Your task to perform on an android device: Open Android settings Image 0: 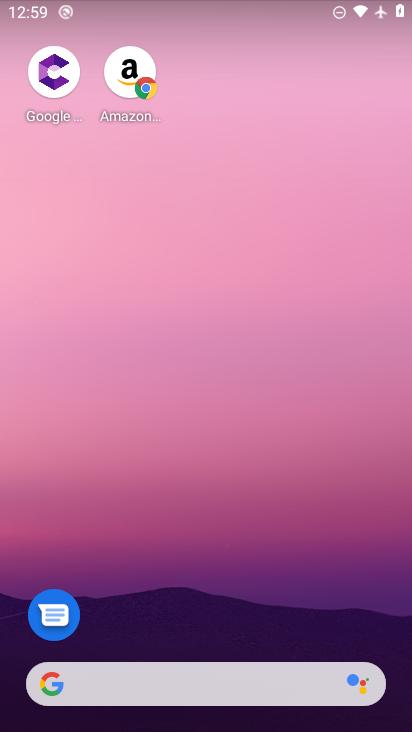
Step 0: press home button
Your task to perform on an android device: Open Android settings Image 1: 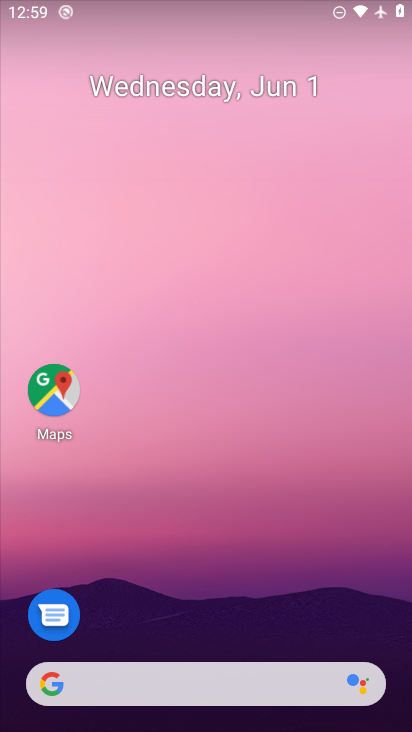
Step 1: drag from (198, 486) to (172, 69)
Your task to perform on an android device: Open Android settings Image 2: 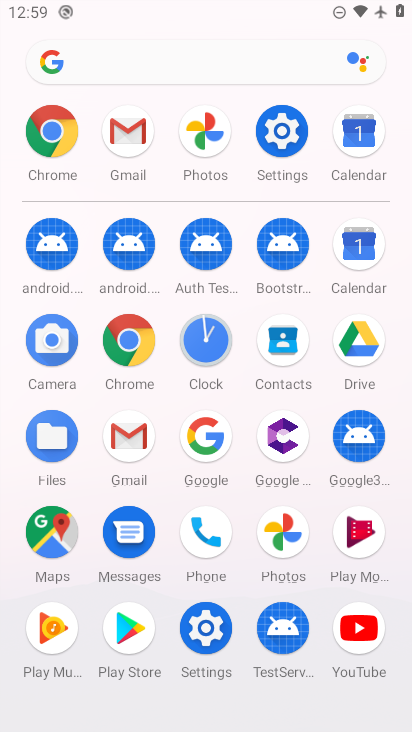
Step 2: click (286, 163)
Your task to perform on an android device: Open Android settings Image 3: 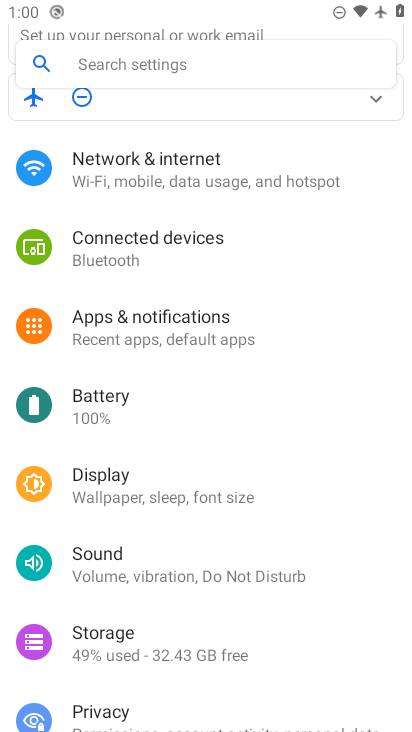
Step 3: drag from (264, 621) to (262, 217)
Your task to perform on an android device: Open Android settings Image 4: 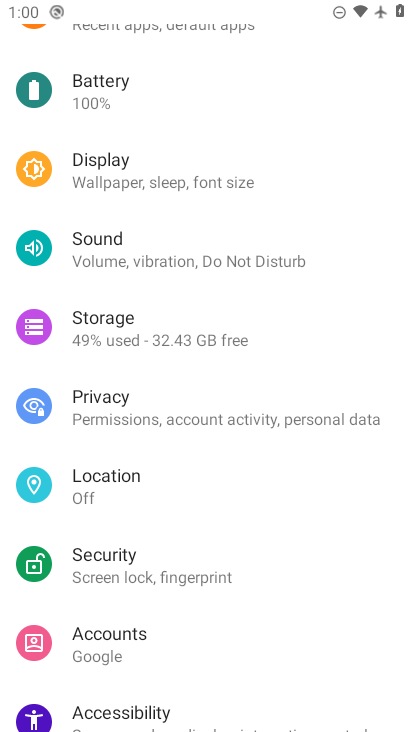
Step 4: drag from (252, 324) to (242, 226)
Your task to perform on an android device: Open Android settings Image 5: 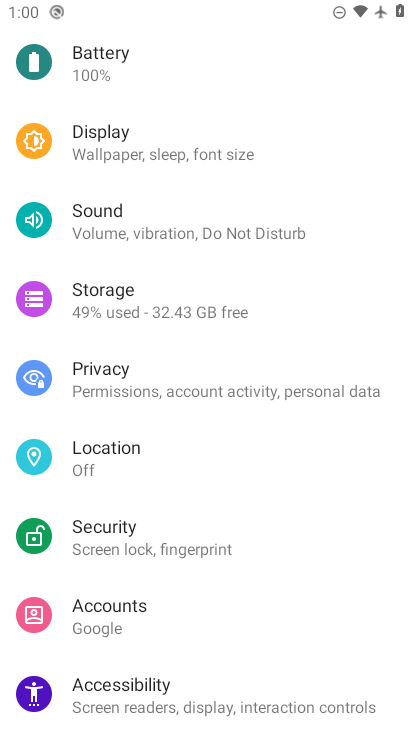
Step 5: drag from (263, 588) to (249, 371)
Your task to perform on an android device: Open Android settings Image 6: 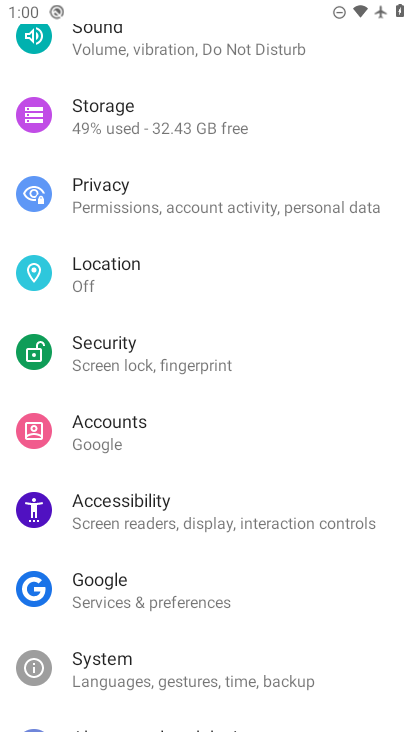
Step 6: drag from (273, 669) to (271, 338)
Your task to perform on an android device: Open Android settings Image 7: 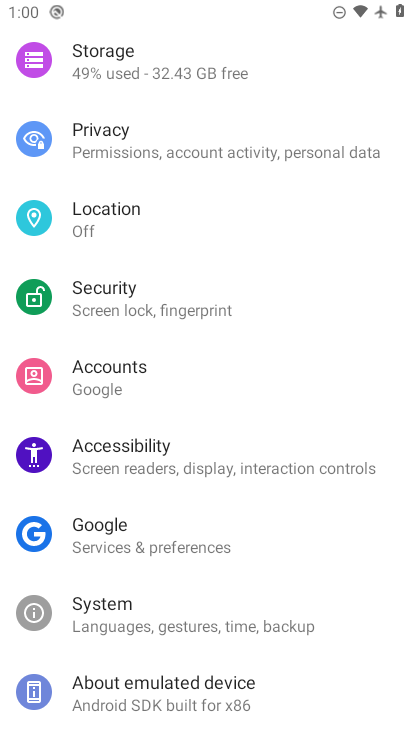
Step 7: click (240, 698)
Your task to perform on an android device: Open Android settings Image 8: 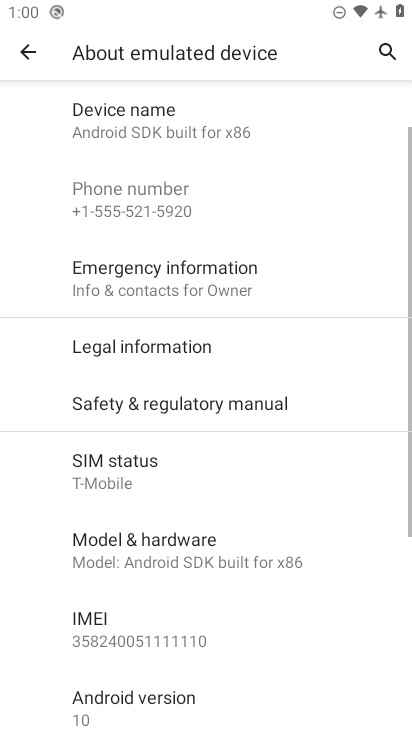
Step 8: task complete